Your task to perform on an android device: Go to privacy settings Image 0: 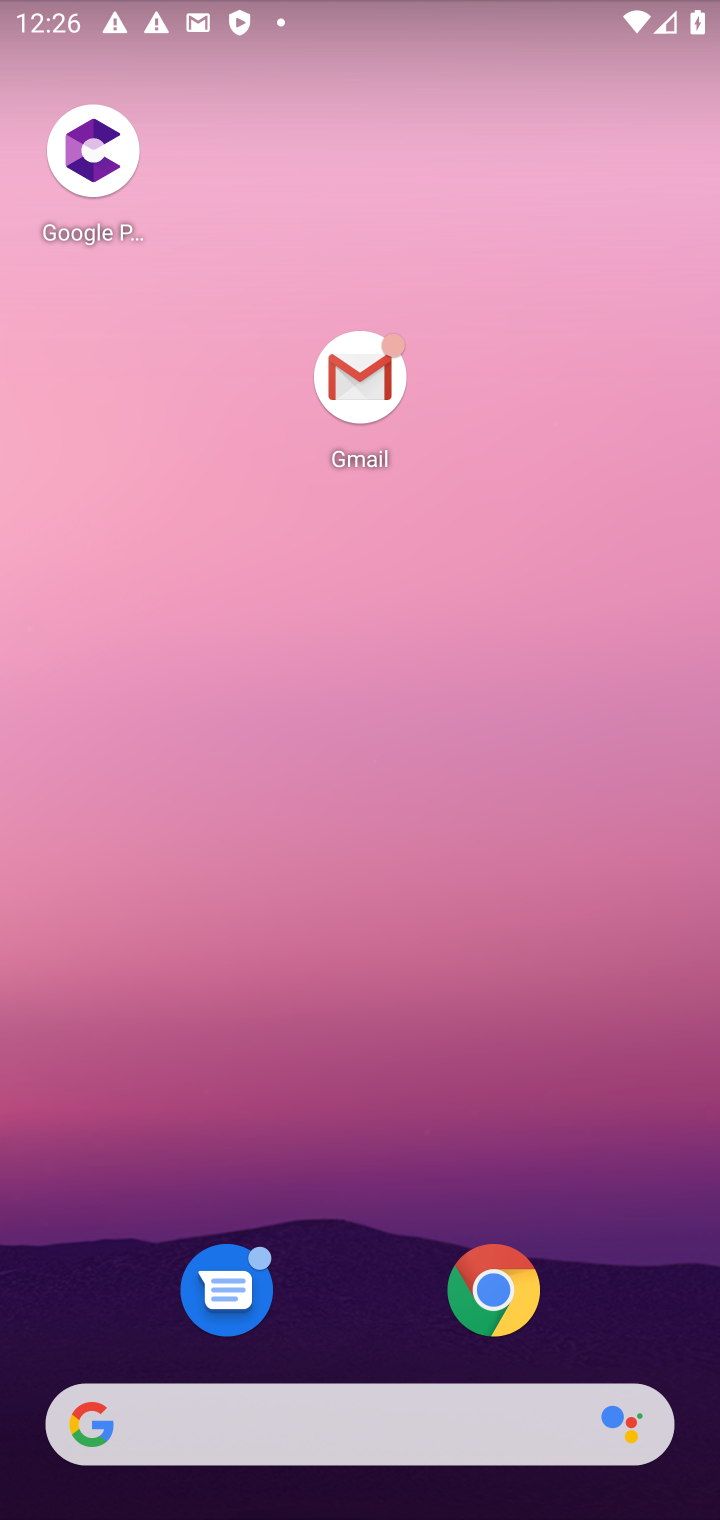
Step 0: drag from (344, 1000) to (498, 196)
Your task to perform on an android device: Go to privacy settings Image 1: 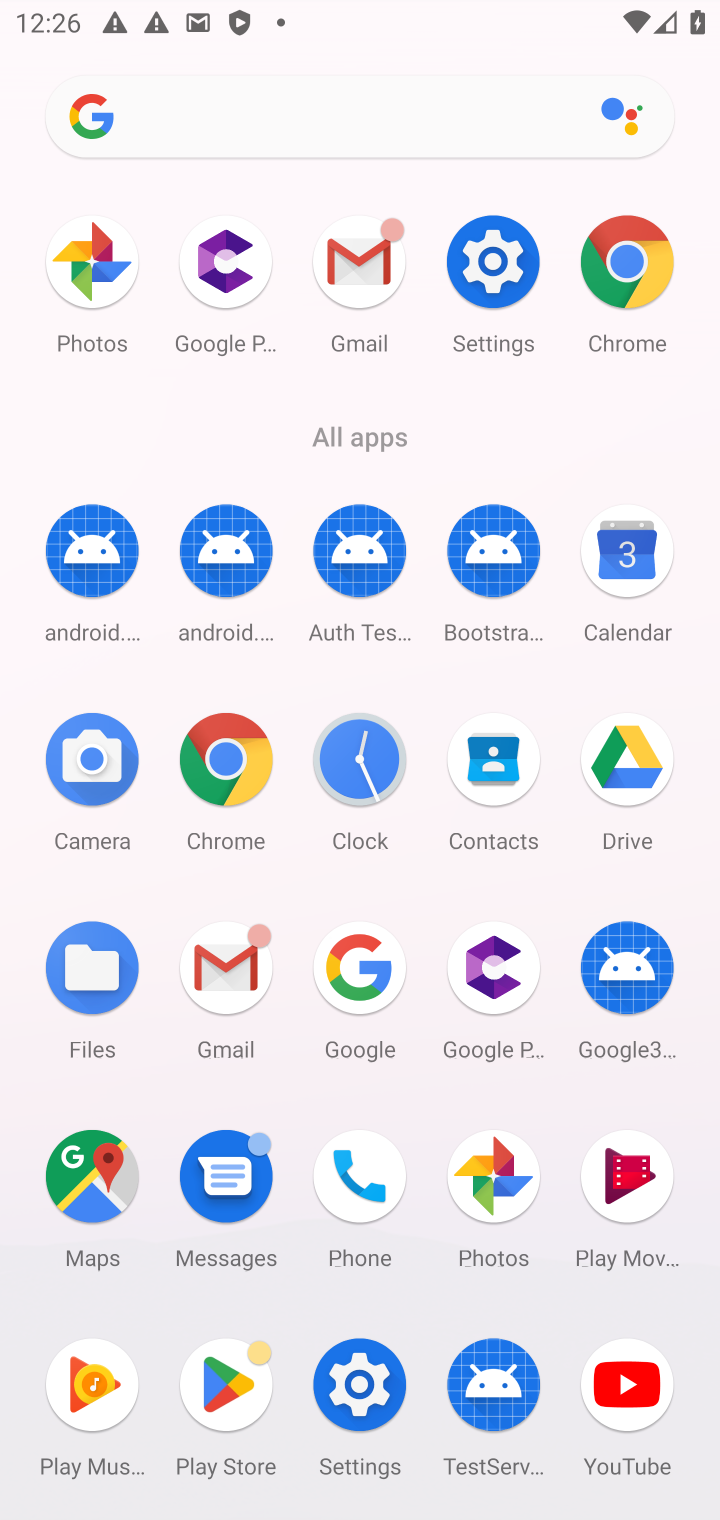
Step 1: drag from (525, 258) to (158, 467)
Your task to perform on an android device: Go to privacy settings Image 2: 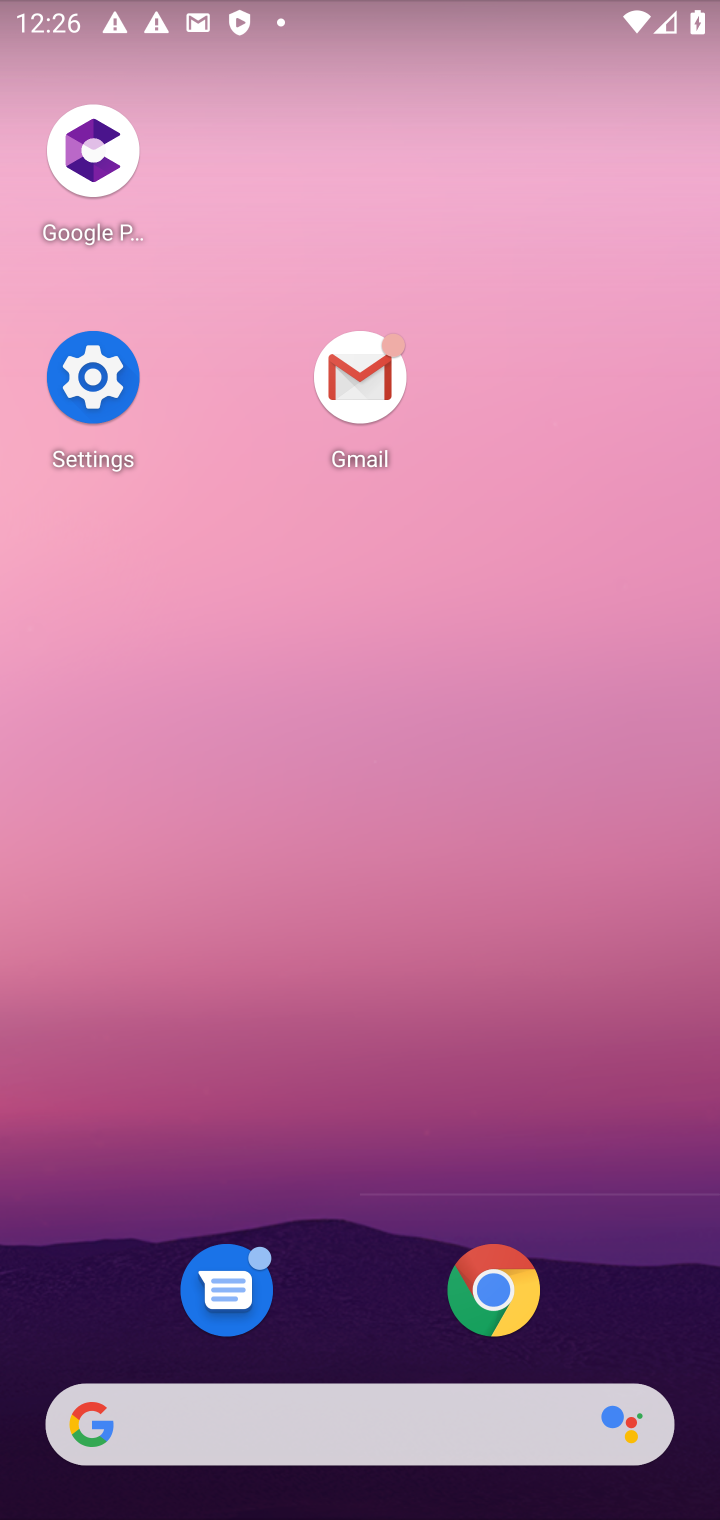
Step 2: click (130, 430)
Your task to perform on an android device: Go to privacy settings Image 3: 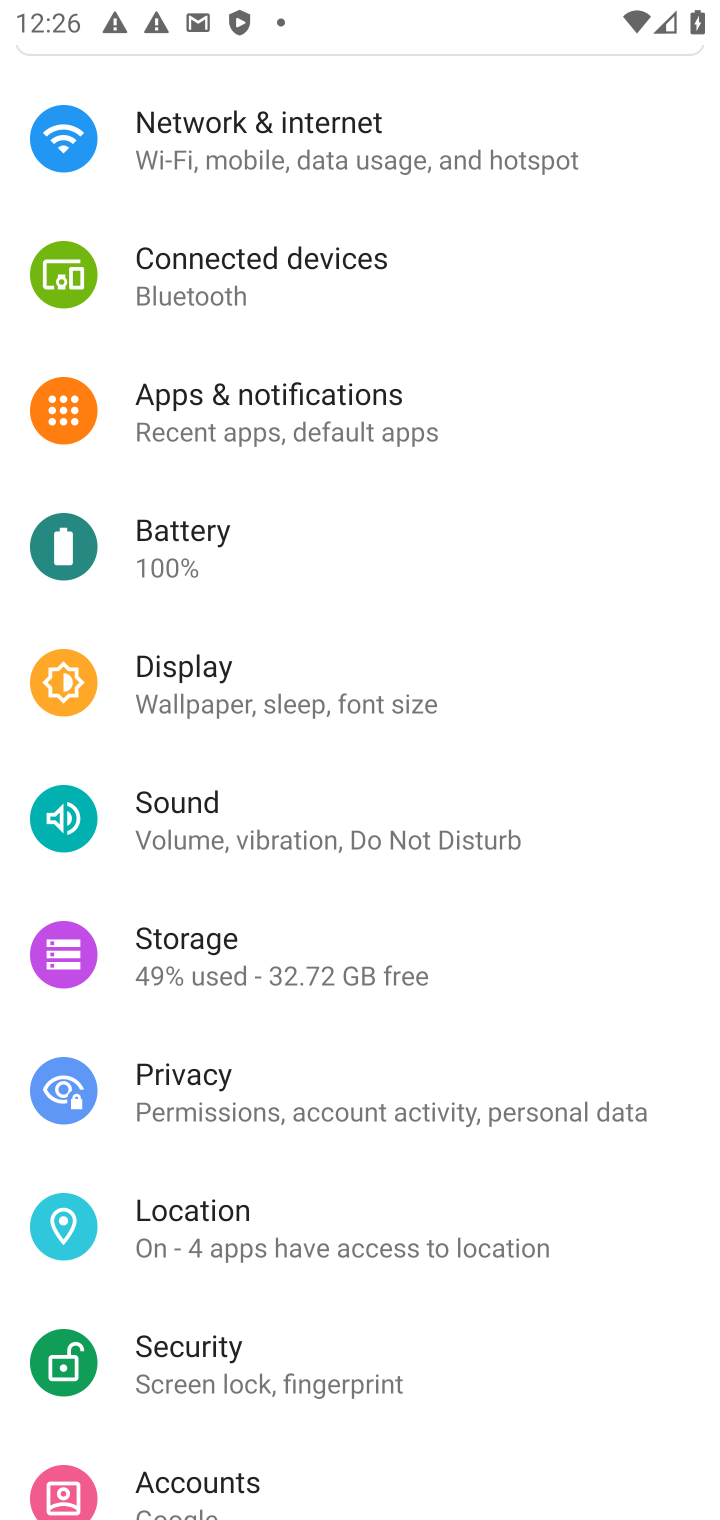
Step 3: click (315, 1082)
Your task to perform on an android device: Go to privacy settings Image 4: 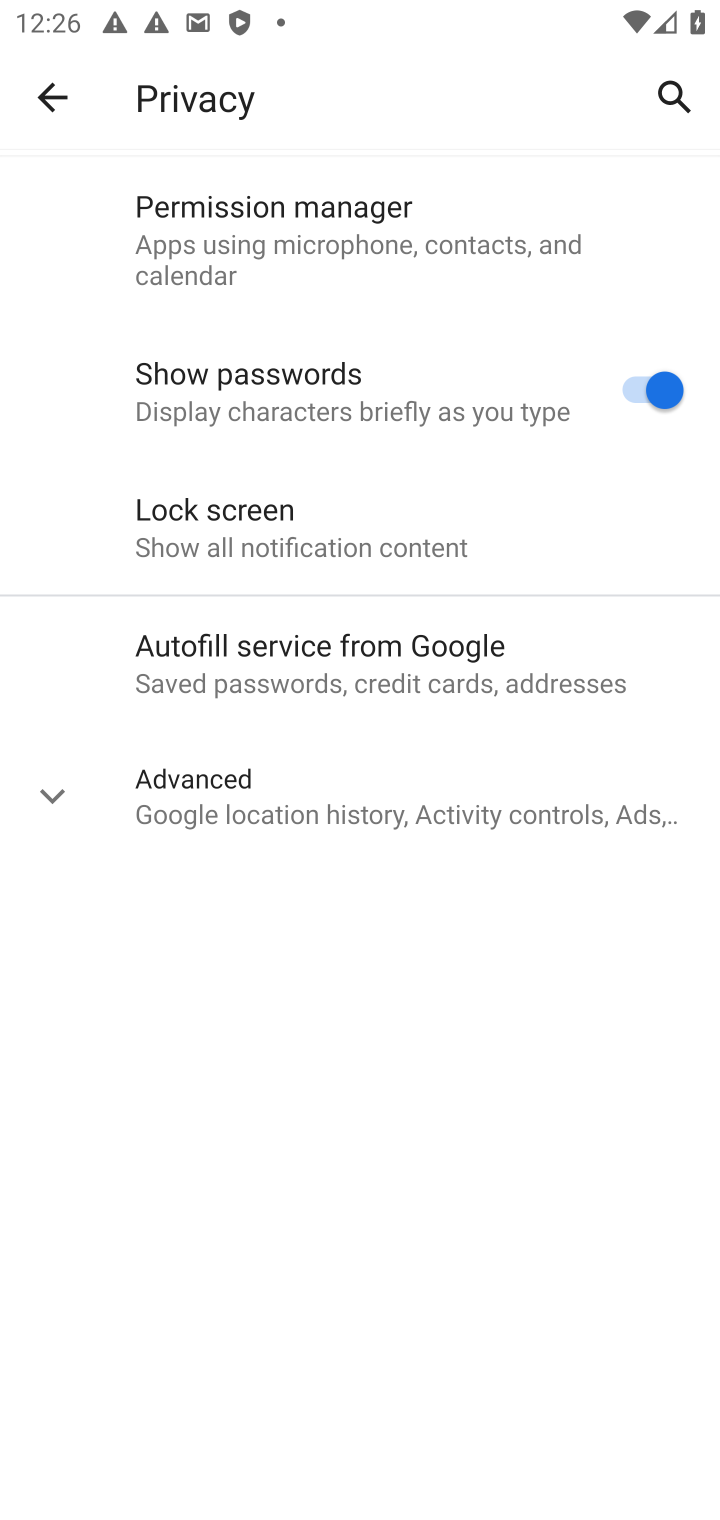
Step 4: task complete